Your task to perform on an android device: toggle data saver in the chrome app Image 0: 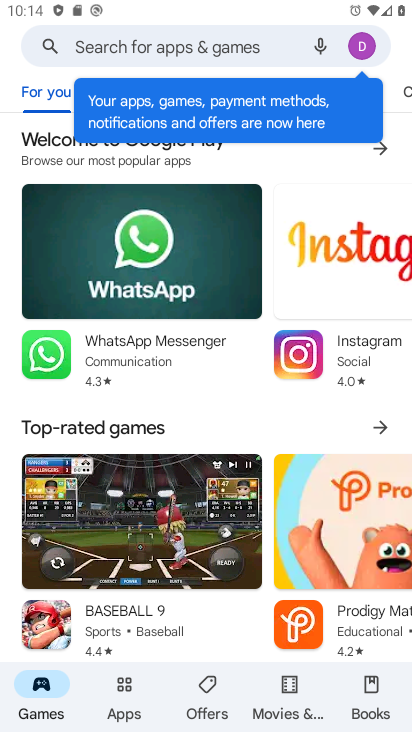
Step 0: press home button
Your task to perform on an android device: toggle data saver in the chrome app Image 1: 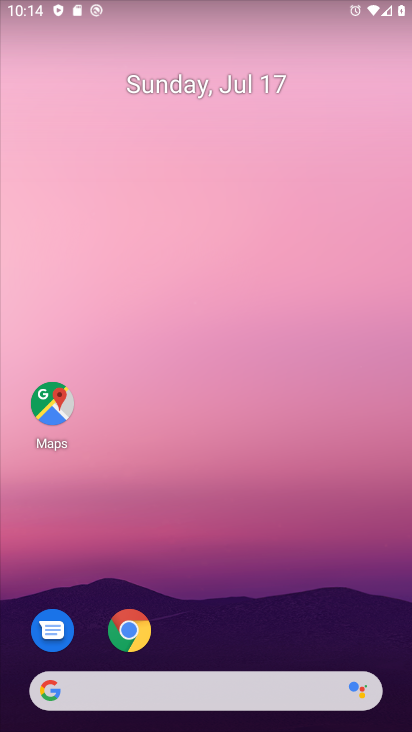
Step 1: drag from (333, 619) to (343, 113)
Your task to perform on an android device: toggle data saver in the chrome app Image 2: 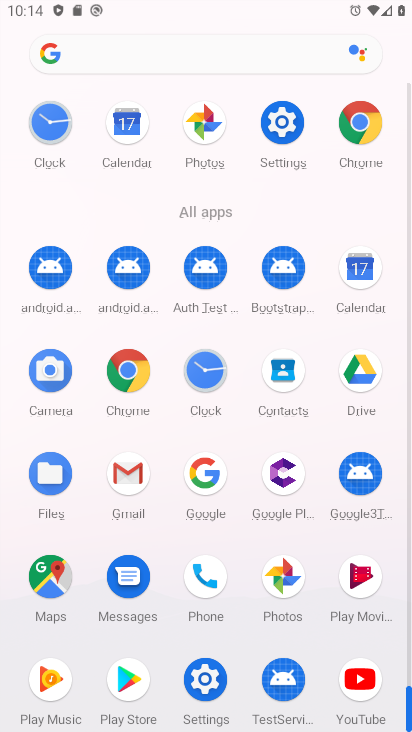
Step 2: click (134, 370)
Your task to perform on an android device: toggle data saver in the chrome app Image 3: 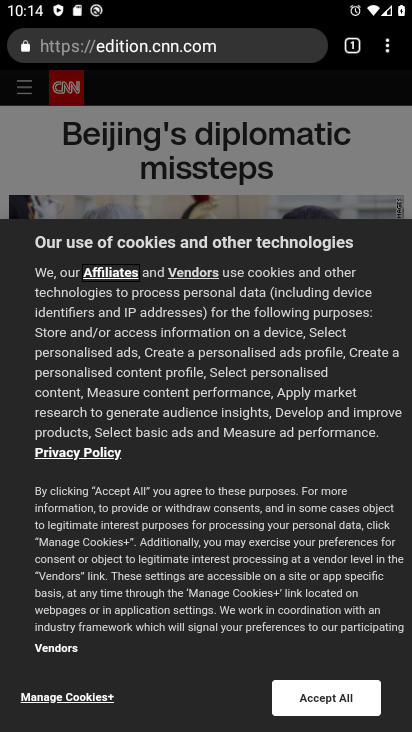
Step 3: click (388, 53)
Your task to perform on an android device: toggle data saver in the chrome app Image 4: 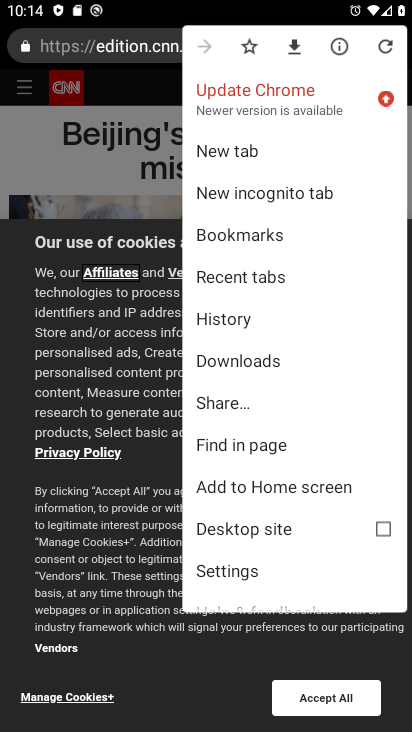
Step 4: drag from (341, 410) to (344, 288)
Your task to perform on an android device: toggle data saver in the chrome app Image 5: 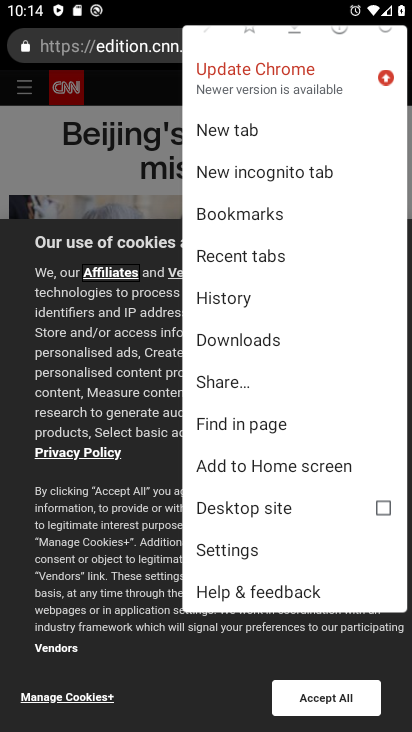
Step 5: click (249, 549)
Your task to perform on an android device: toggle data saver in the chrome app Image 6: 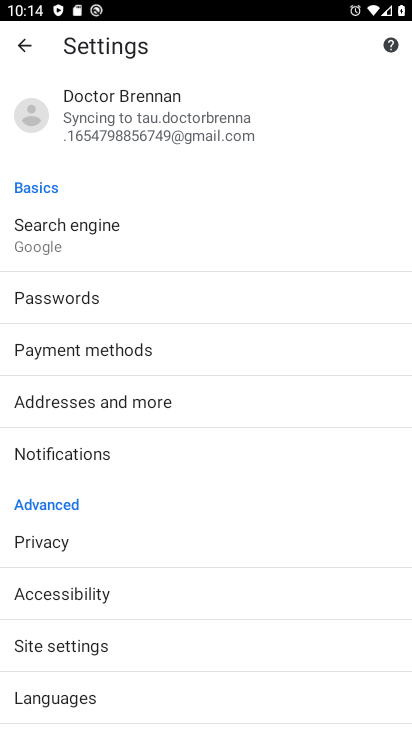
Step 6: drag from (305, 436) to (313, 330)
Your task to perform on an android device: toggle data saver in the chrome app Image 7: 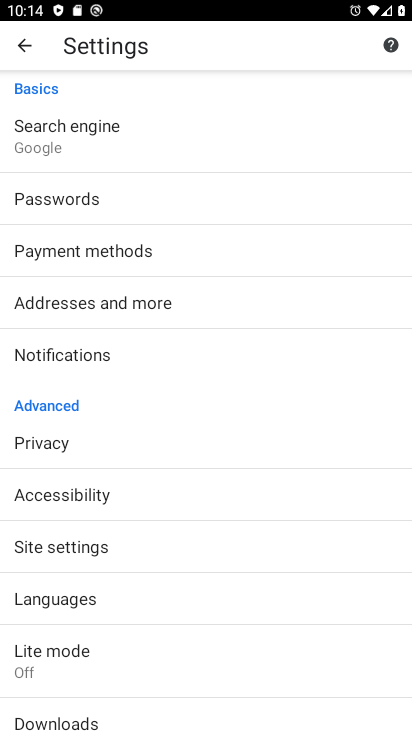
Step 7: drag from (311, 477) to (310, 385)
Your task to perform on an android device: toggle data saver in the chrome app Image 8: 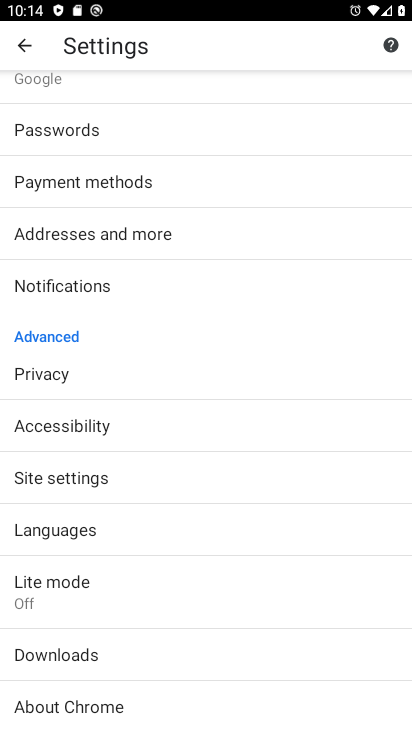
Step 8: drag from (315, 513) to (321, 362)
Your task to perform on an android device: toggle data saver in the chrome app Image 9: 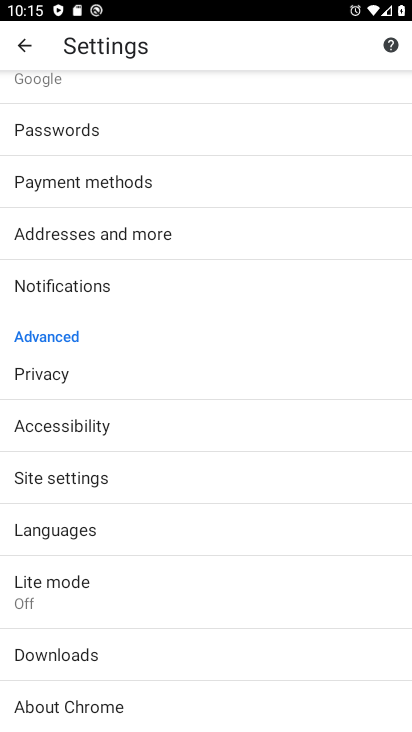
Step 9: click (165, 583)
Your task to perform on an android device: toggle data saver in the chrome app Image 10: 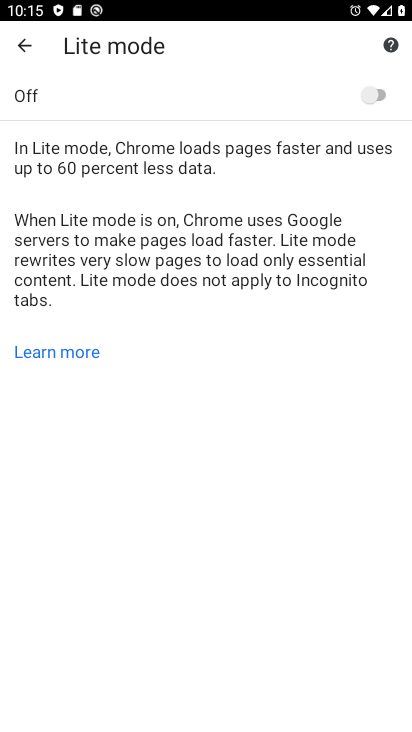
Step 10: click (366, 93)
Your task to perform on an android device: toggle data saver in the chrome app Image 11: 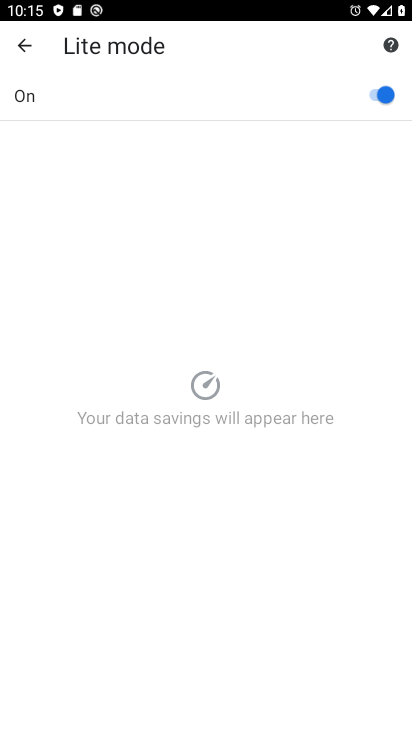
Step 11: task complete